Your task to perform on an android device: Is it going to rain today? Image 0: 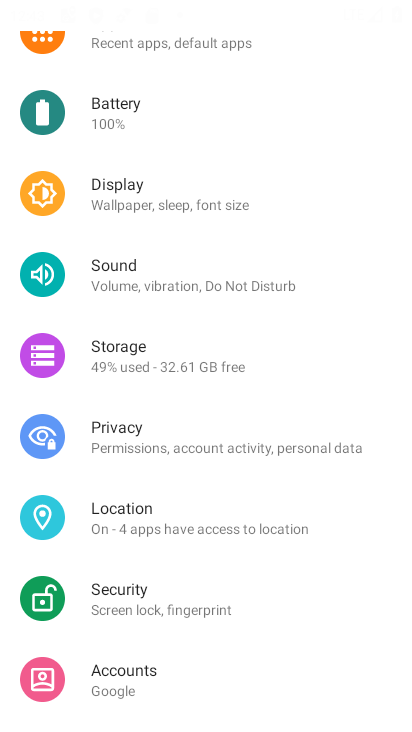
Step 0: press home button
Your task to perform on an android device: Is it going to rain today? Image 1: 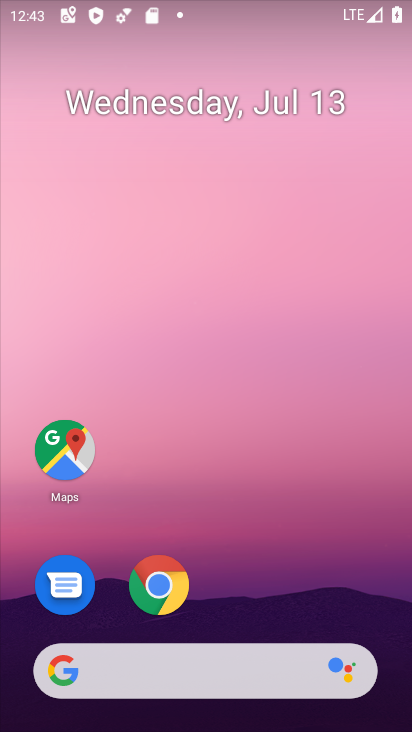
Step 1: drag from (192, 550) to (207, 71)
Your task to perform on an android device: Is it going to rain today? Image 2: 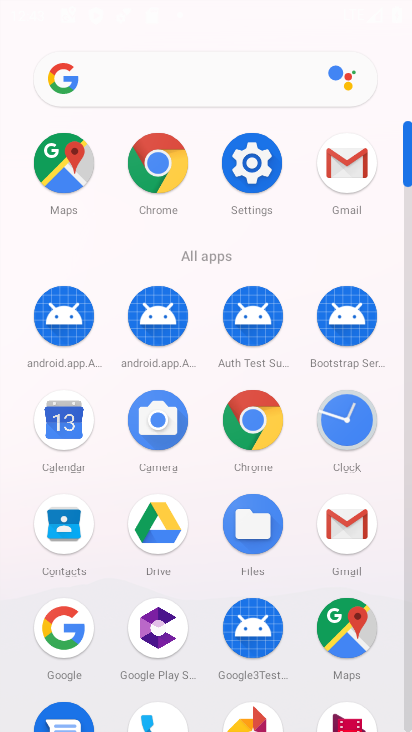
Step 2: click (342, 185)
Your task to perform on an android device: Is it going to rain today? Image 3: 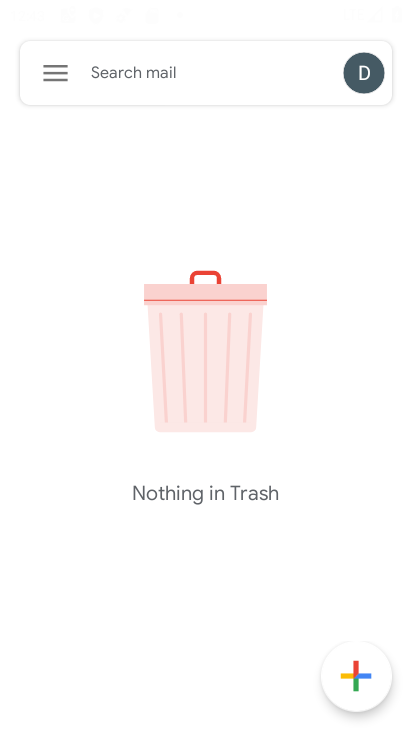
Step 3: press back button
Your task to perform on an android device: Is it going to rain today? Image 4: 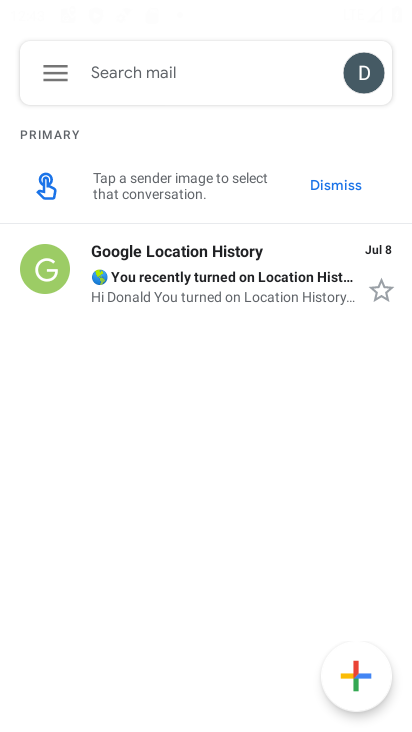
Step 4: press back button
Your task to perform on an android device: Is it going to rain today? Image 5: 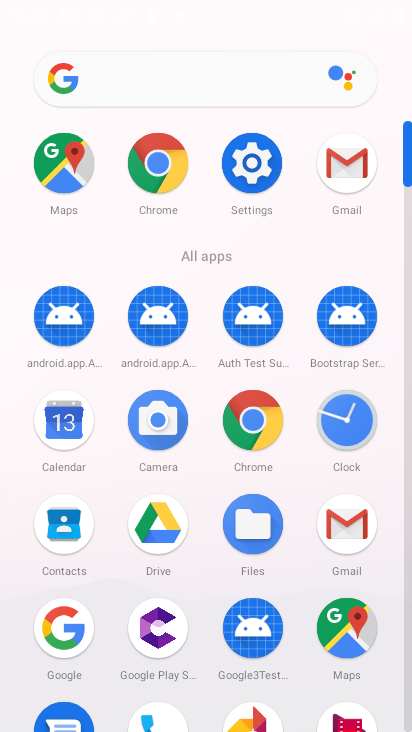
Step 5: press back button
Your task to perform on an android device: Is it going to rain today? Image 6: 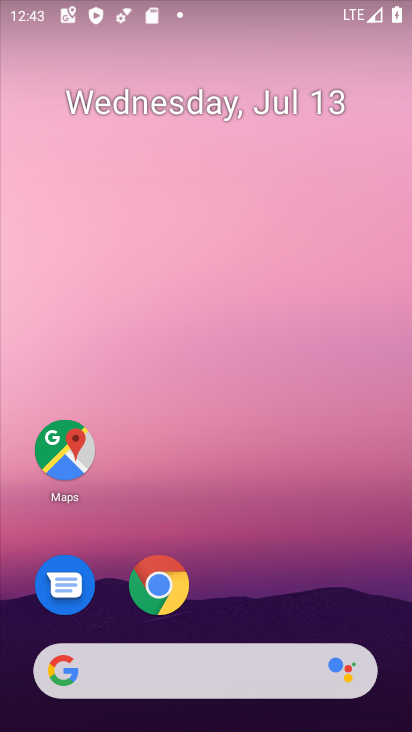
Step 6: click (208, 660)
Your task to perform on an android device: Is it going to rain today? Image 7: 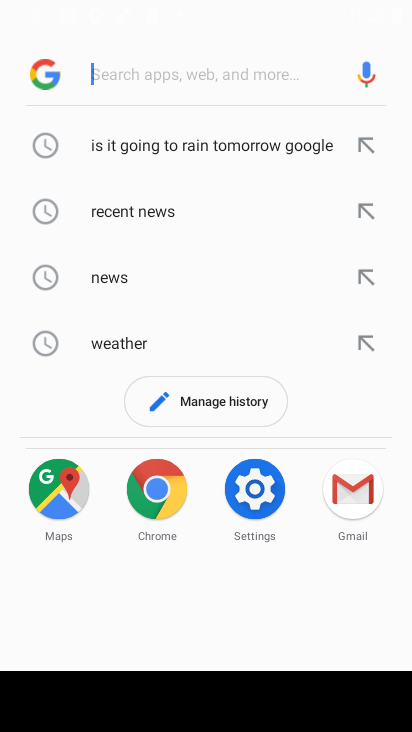
Step 7: click (138, 342)
Your task to perform on an android device: Is it going to rain today? Image 8: 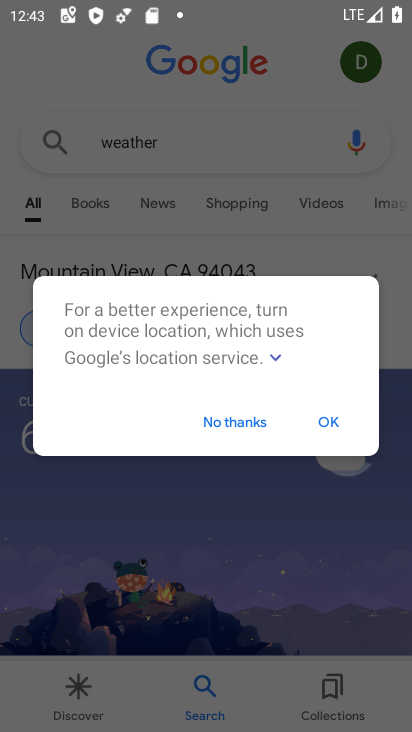
Step 8: click (235, 425)
Your task to perform on an android device: Is it going to rain today? Image 9: 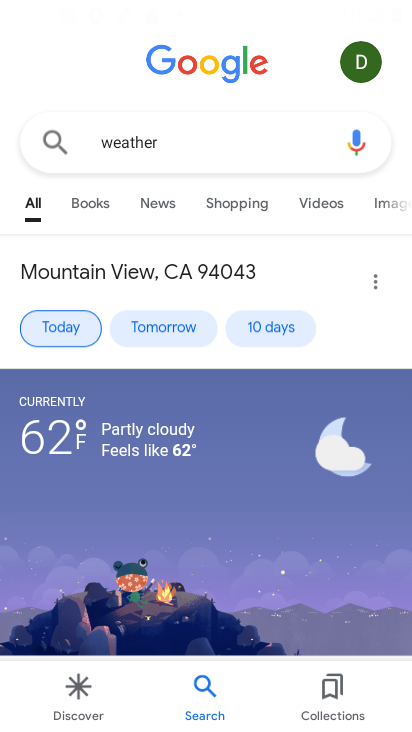
Step 9: task complete